Your task to perform on an android device: visit the assistant section in the google photos Image 0: 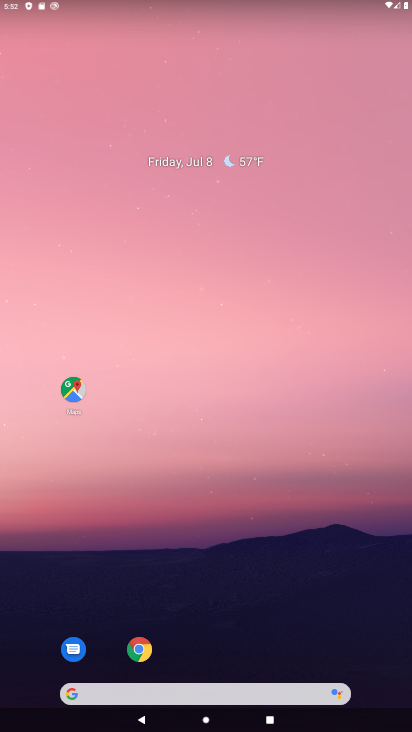
Step 0: drag from (243, 690) to (324, 1)
Your task to perform on an android device: visit the assistant section in the google photos Image 1: 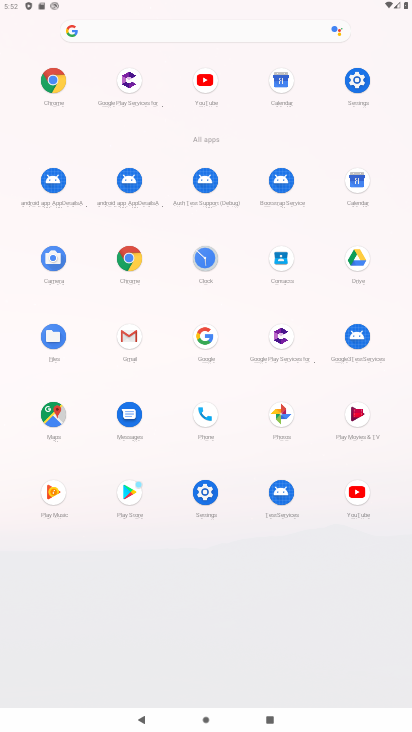
Step 1: click (272, 409)
Your task to perform on an android device: visit the assistant section in the google photos Image 2: 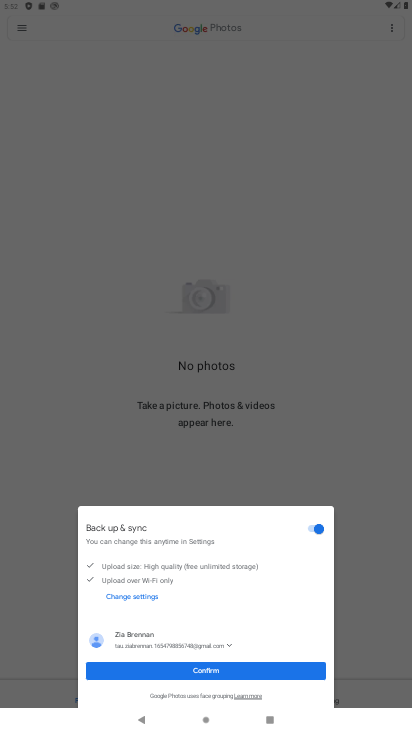
Step 2: click (182, 664)
Your task to perform on an android device: visit the assistant section in the google photos Image 3: 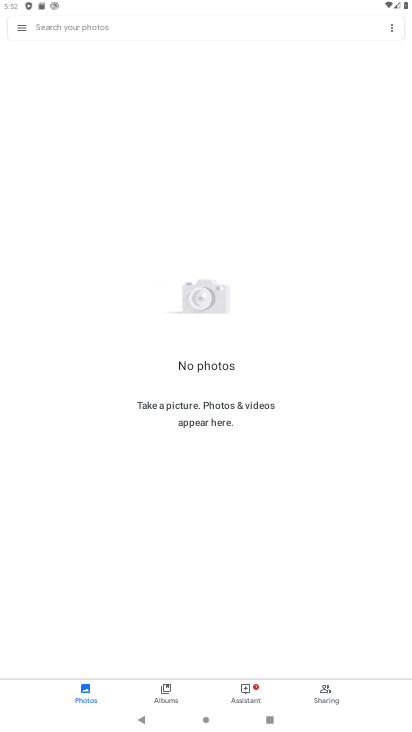
Step 3: click (241, 688)
Your task to perform on an android device: visit the assistant section in the google photos Image 4: 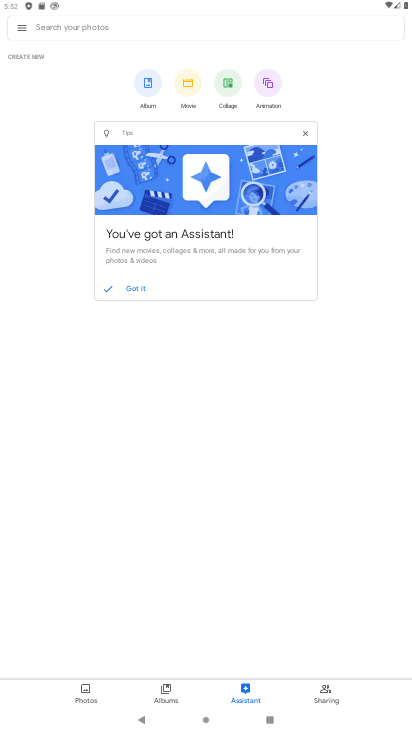
Step 4: task complete